Your task to perform on an android device: Clear the shopping cart on target.com. Search for asus zenbook on target.com, select the first entry, and add it to the cart. Image 0: 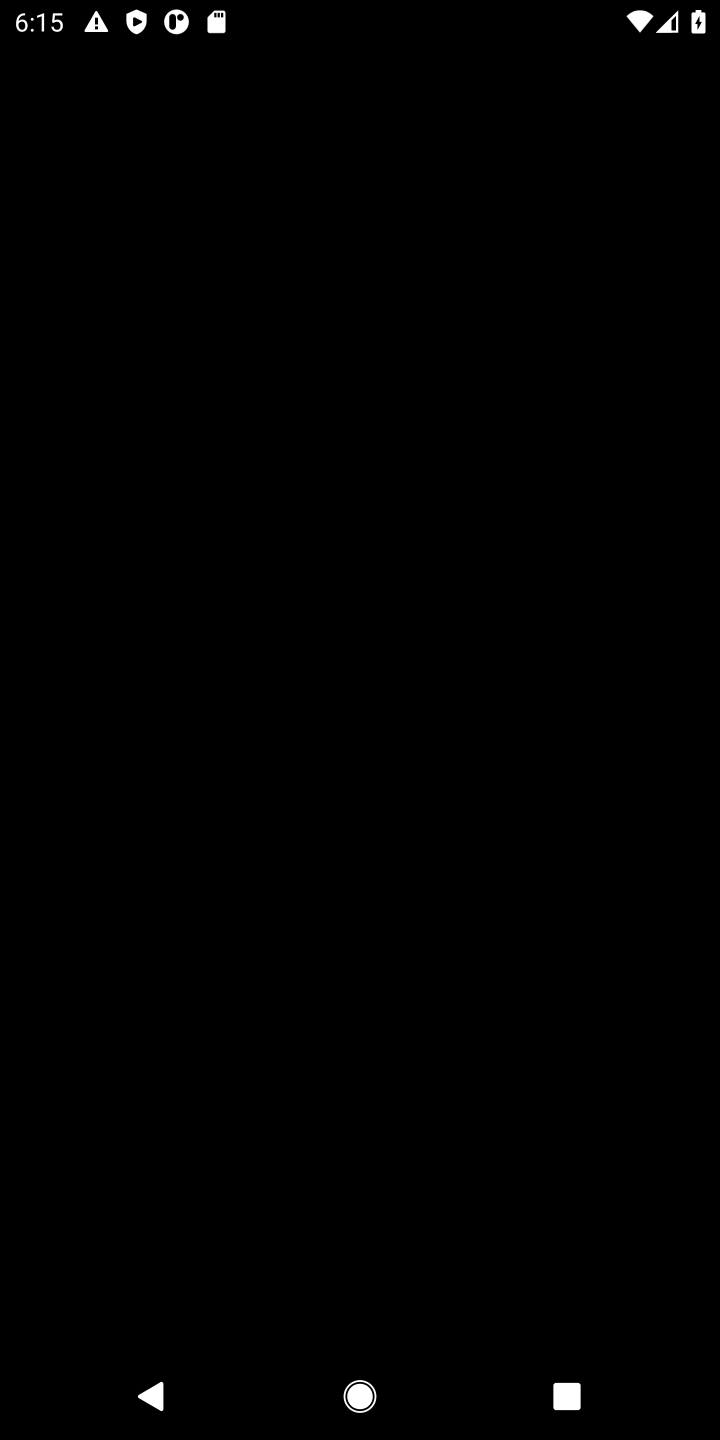
Step 0: press home button
Your task to perform on an android device: Clear the shopping cart on target.com. Search for asus zenbook on target.com, select the first entry, and add it to the cart. Image 1: 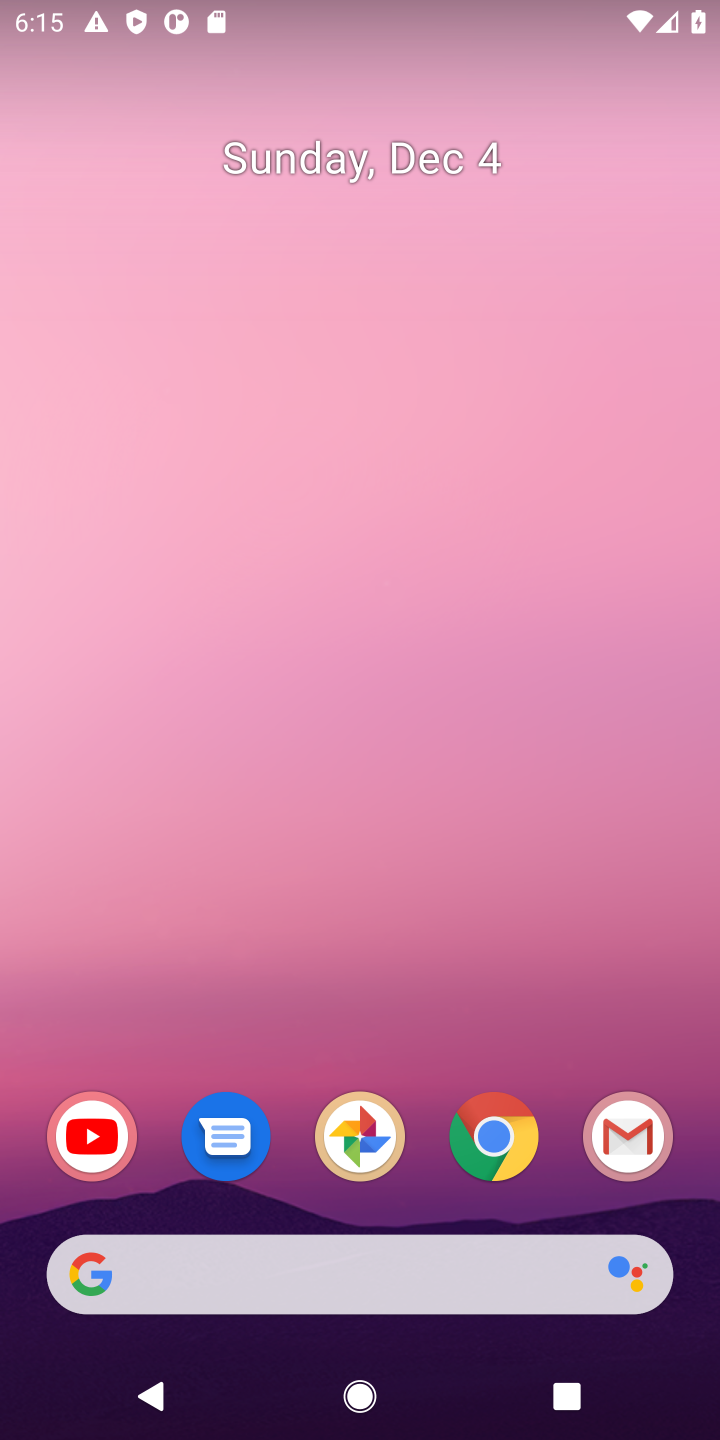
Step 1: click (480, 1161)
Your task to perform on an android device: Clear the shopping cart on target.com. Search for asus zenbook on target.com, select the first entry, and add it to the cart. Image 2: 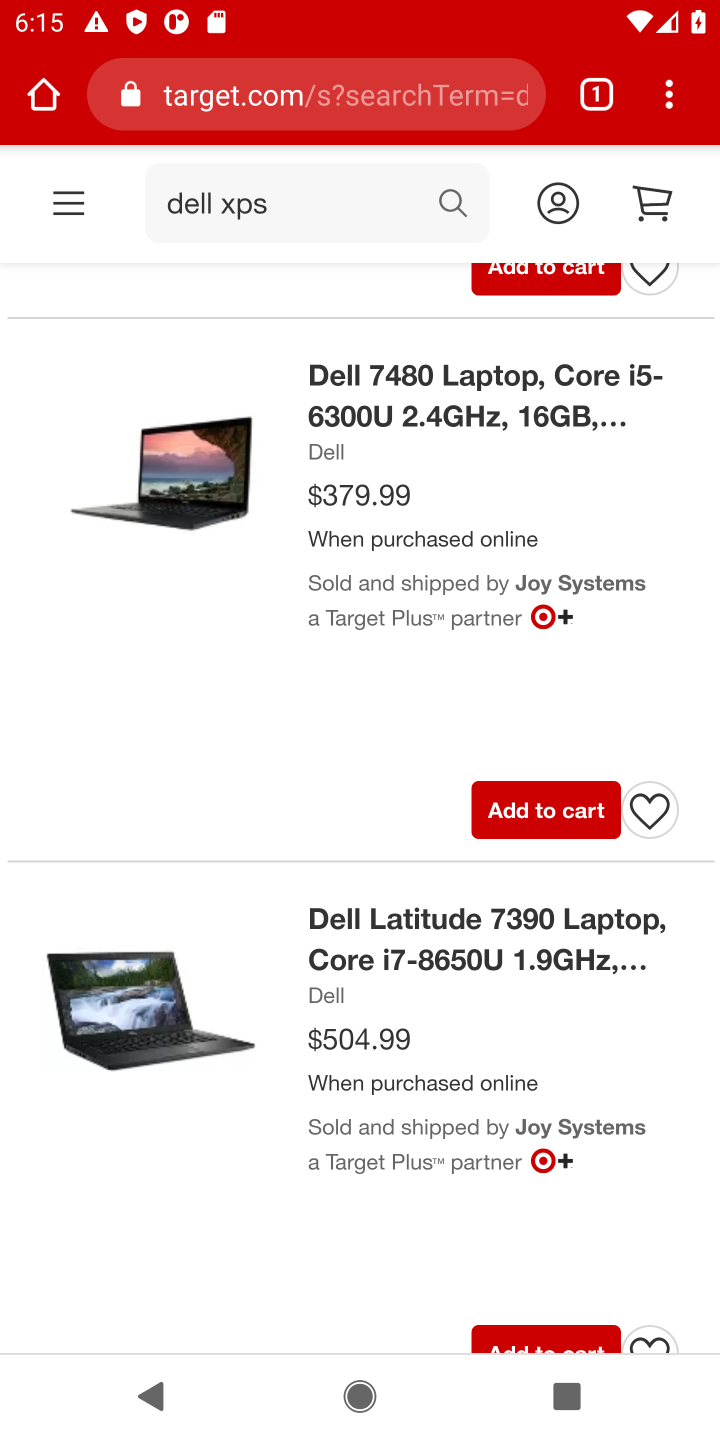
Step 2: click (634, 204)
Your task to perform on an android device: Clear the shopping cart on target.com. Search for asus zenbook on target.com, select the first entry, and add it to the cart. Image 3: 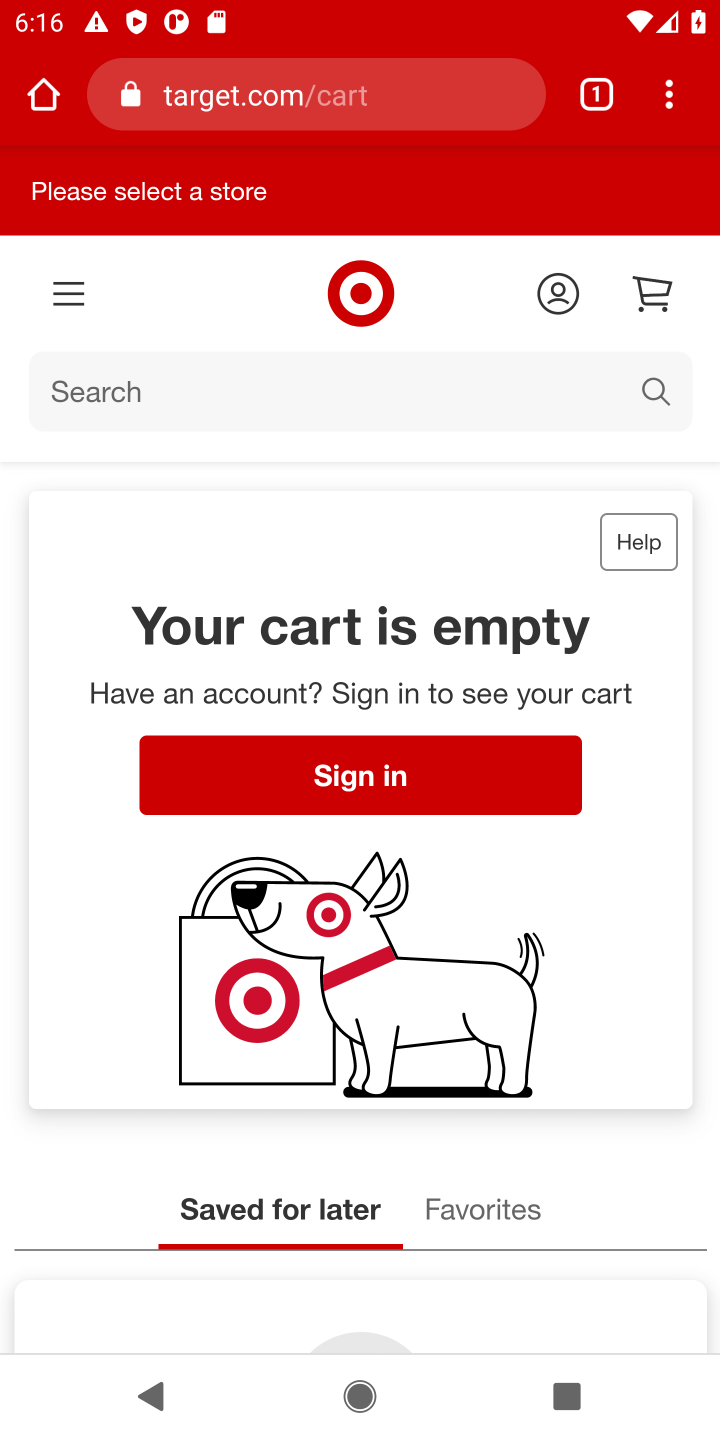
Step 3: click (88, 404)
Your task to perform on an android device: Clear the shopping cart on target.com. Search for asus zenbook on target.com, select the first entry, and add it to the cart. Image 4: 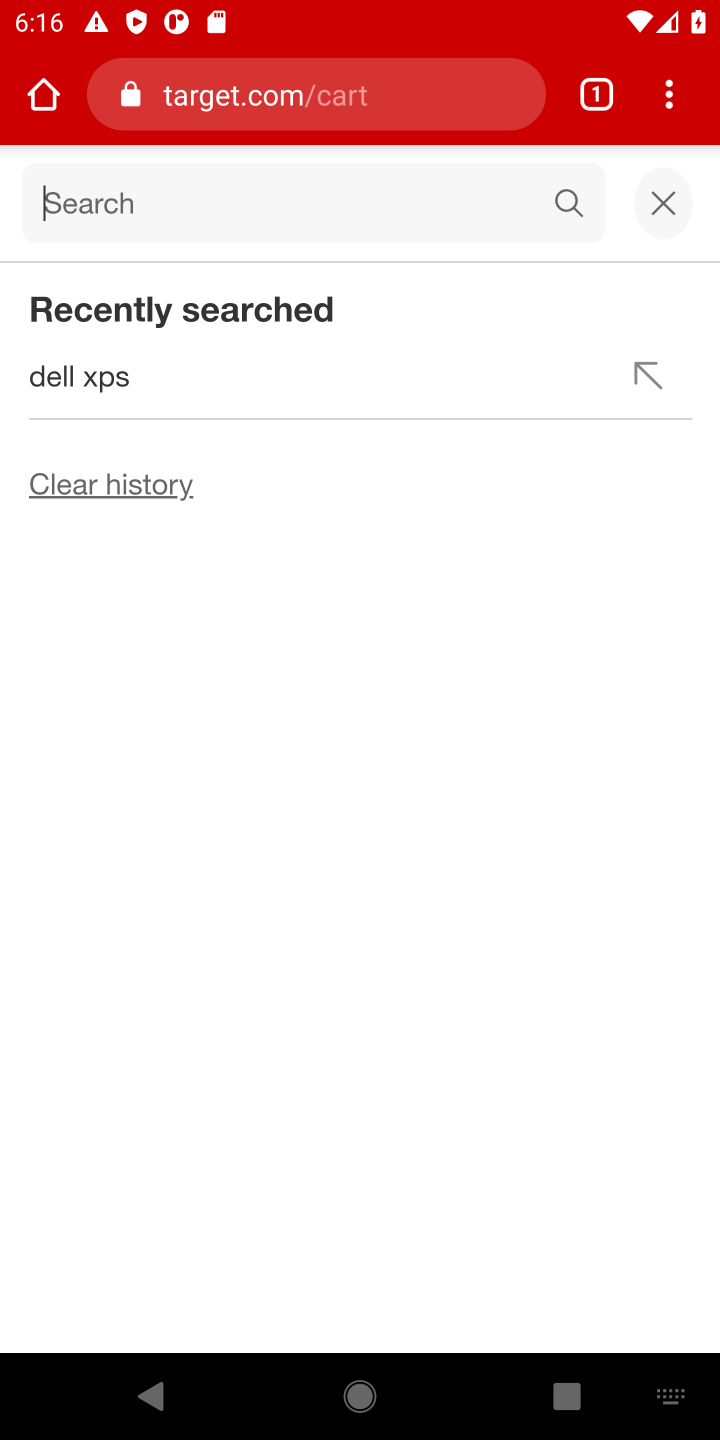
Step 4: type "asus zenbook "
Your task to perform on an android device: Clear the shopping cart on target.com. Search for asus zenbook on target.com, select the first entry, and add it to the cart. Image 5: 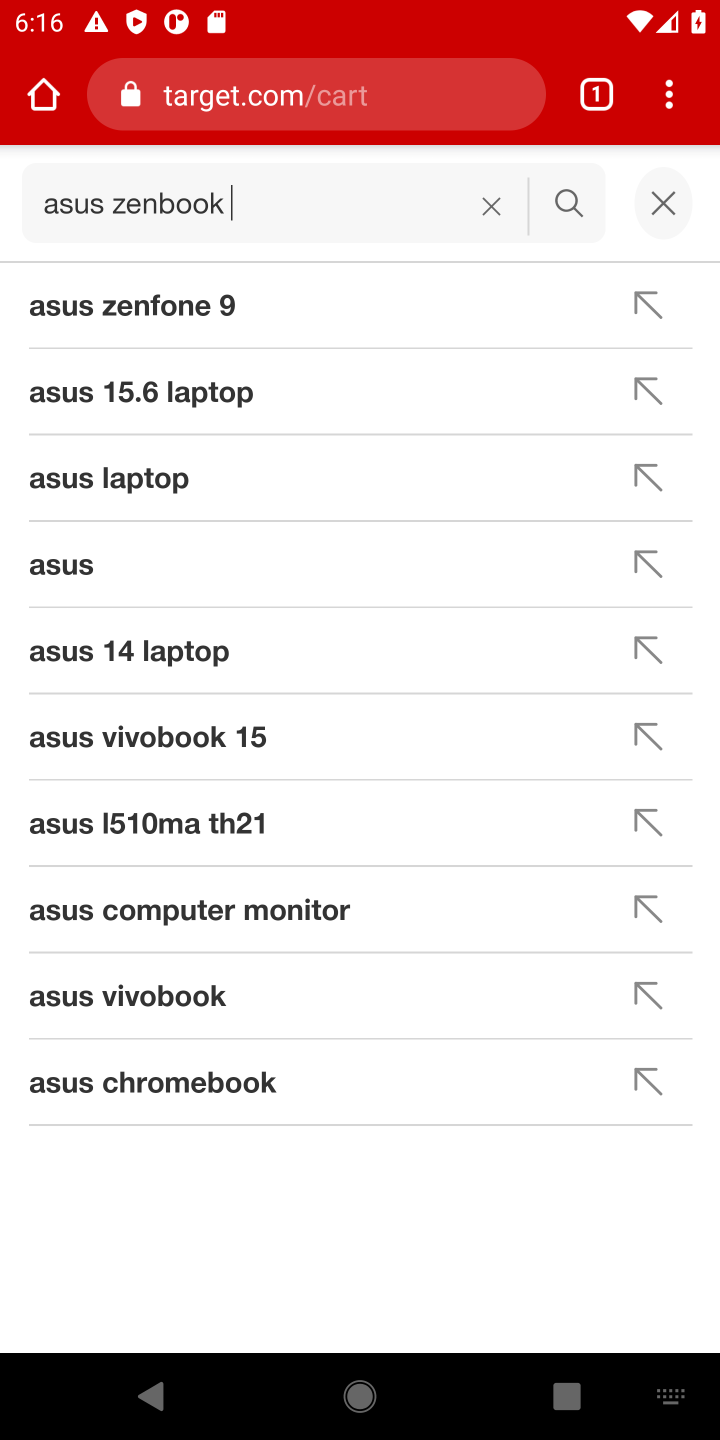
Step 5: click (549, 200)
Your task to perform on an android device: Clear the shopping cart on target.com. Search for asus zenbook on target.com, select the first entry, and add it to the cart. Image 6: 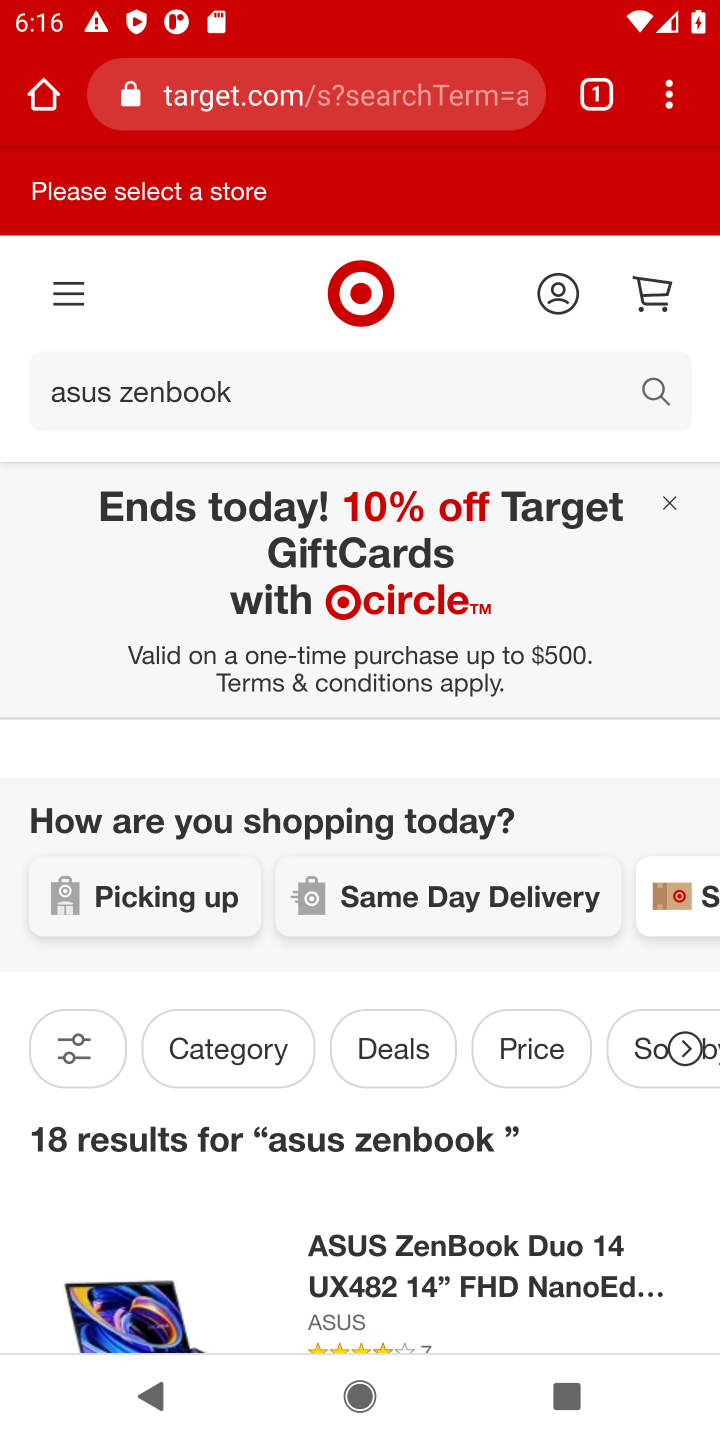
Step 6: drag from (288, 1155) to (238, 628)
Your task to perform on an android device: Clear the shopping cart on target.com. Search for asus zenbook on target.com, select the first entry, and add it to the cart. Image 7: 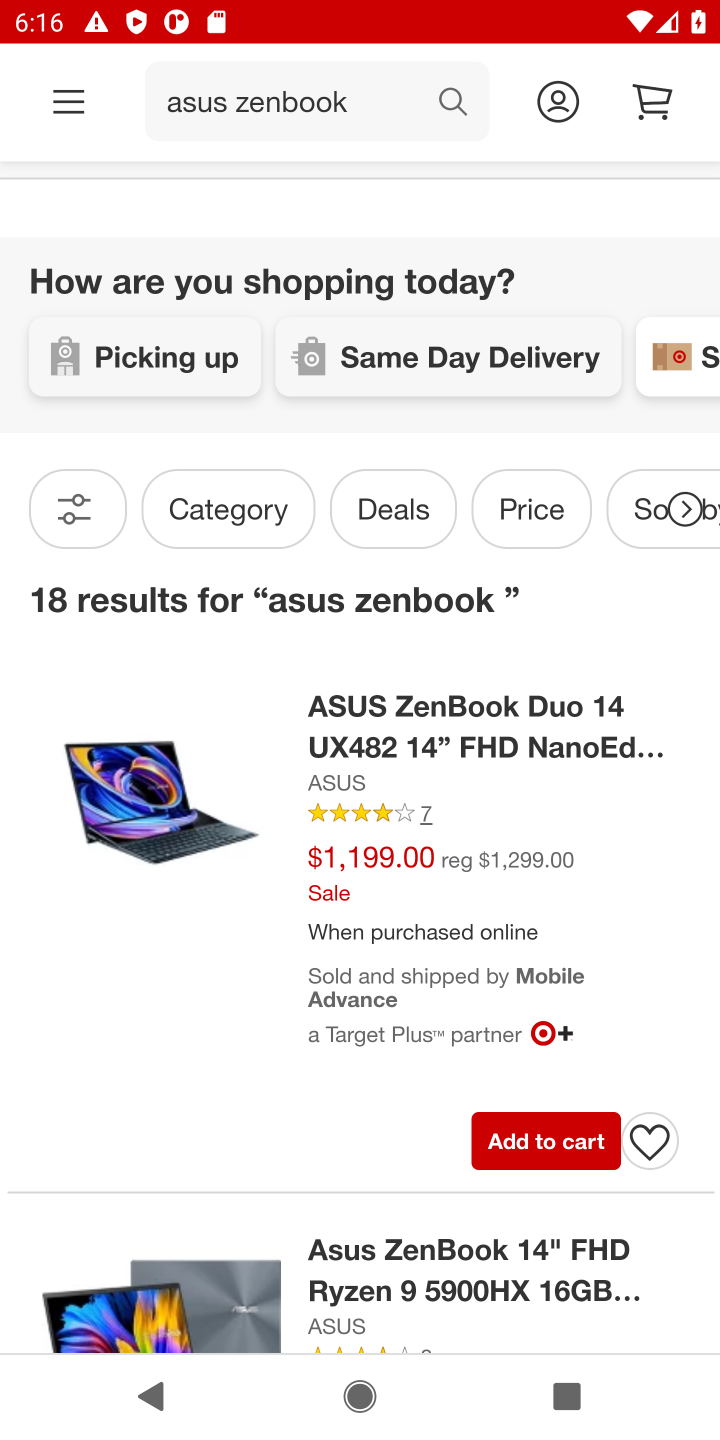
Step 7: click (539, 1148)
Your task to perform on an android device: Clear the shopping cart on target.com. Search for asus zenbook on target.com, select the first entry, and add it to the cart. Image 8: 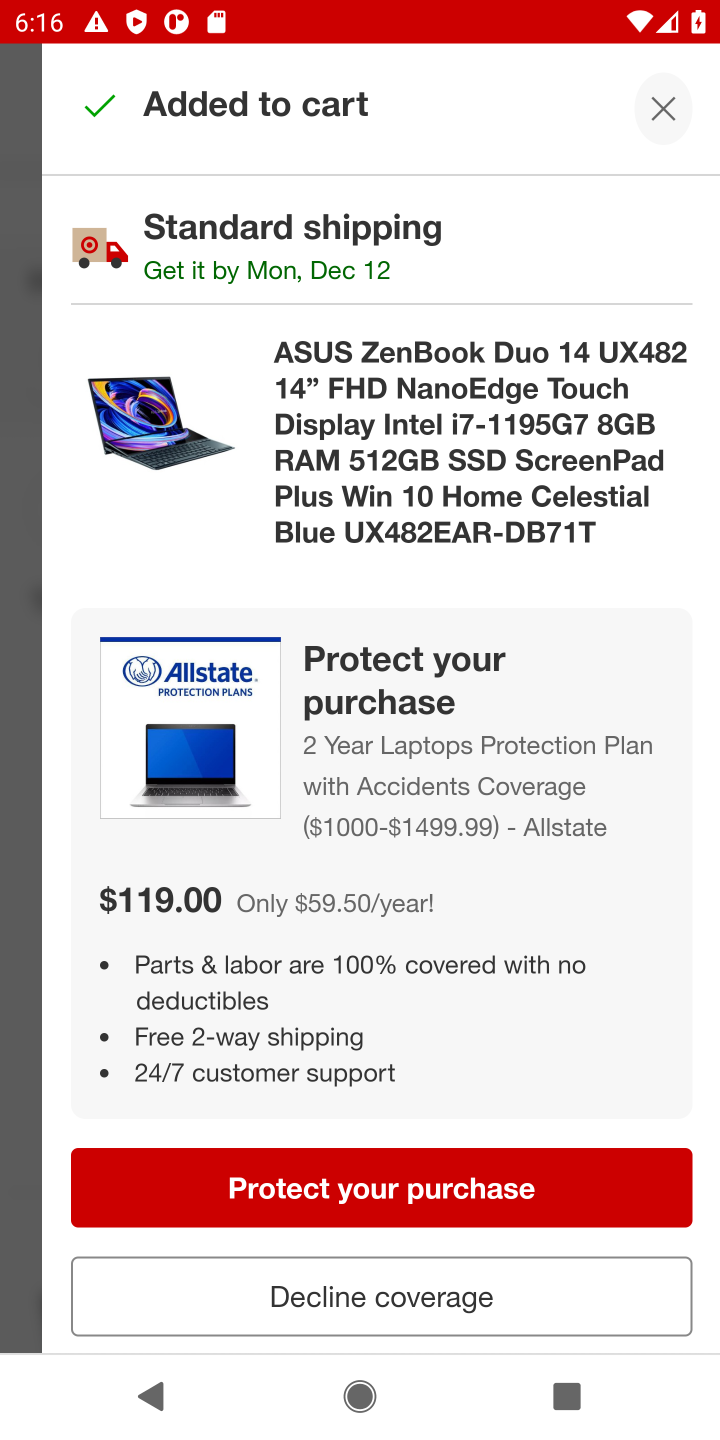
Step 8: task complete